Your task to perform on an android device: turn on showing notifications on the lock screen Image 0: 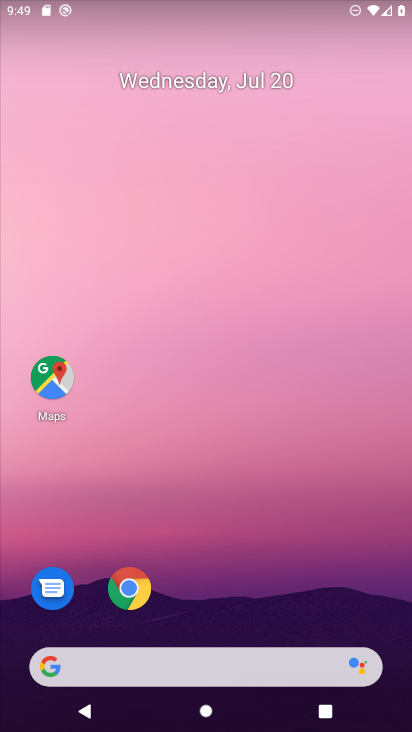
Step 0: press home button
Your task to perform on an android device: turn on showing notifications on the lock screen Image 1: 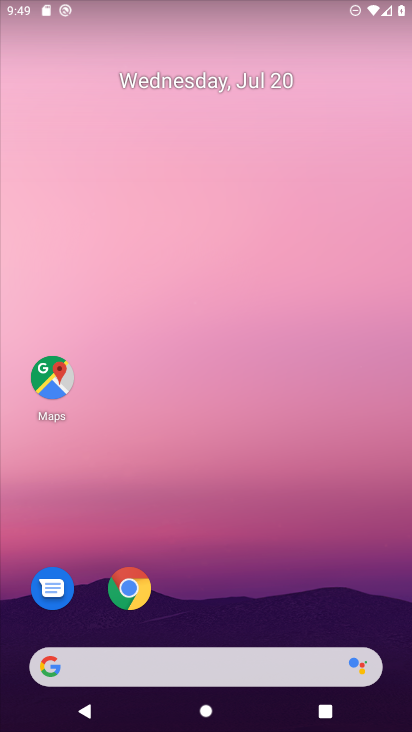
Step 1: drag from (254, 612) to (280, 179)
Your task to perform on an android device: turn on showing notifications on the lock screen Image 2: 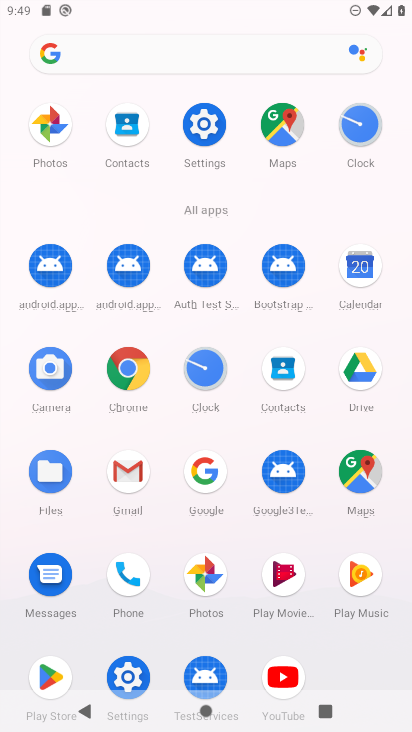
Step 2: click (210, 133)
Your task to perform on an android device: turn on showing notifications on the lock screen Image 3: 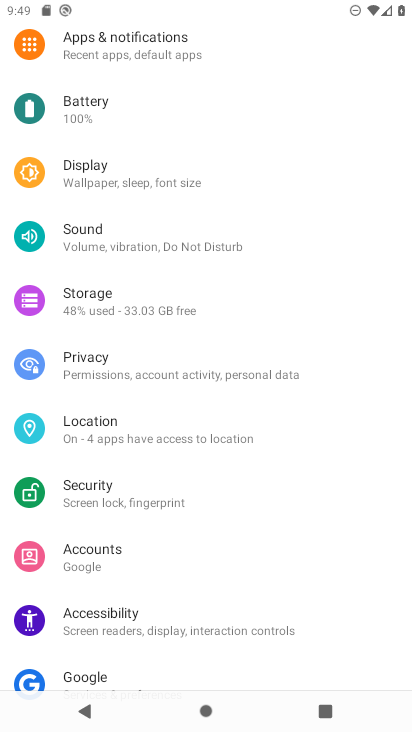
Step 3: click (109, 44)
Your task to perform on an android device: turn on showing notifications on the lock screen Image 4: 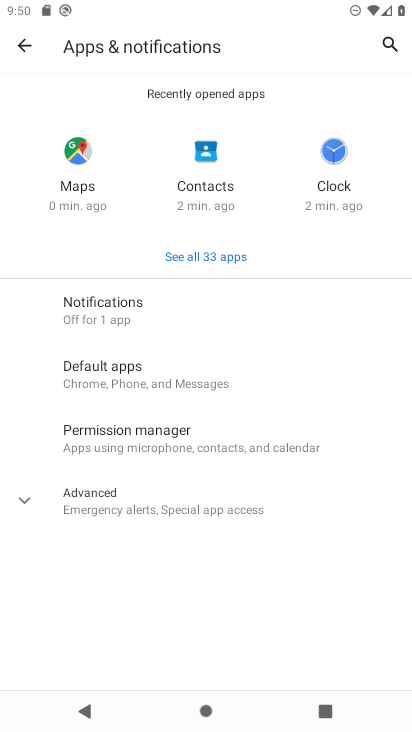
Step 4: click (112, 310)
Your task to perform on an android device: turn on showing notifications on the lock screen Image 5: 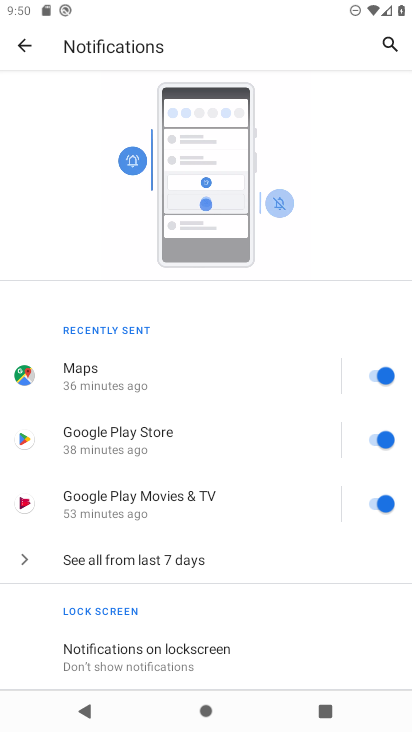
Step 5: click (185, 631)
Your task to perform on an android device: turn on showing notifications on the lock screen Image 6: 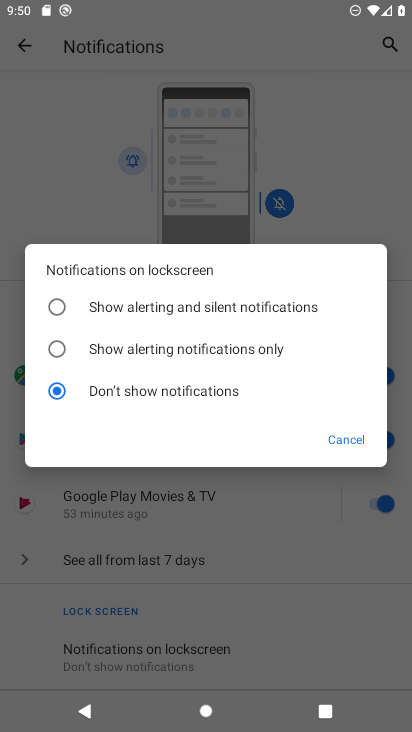
Step 6: click (58, 310)
Your task to perform on an android device: turn on showing notifications on the lock screen Image 7: 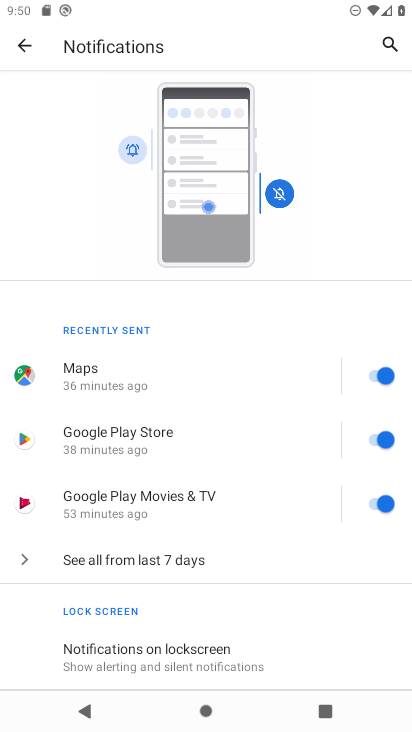
Step 7: task complete